Your task to perform on an android device: Go to Maps Image 0: 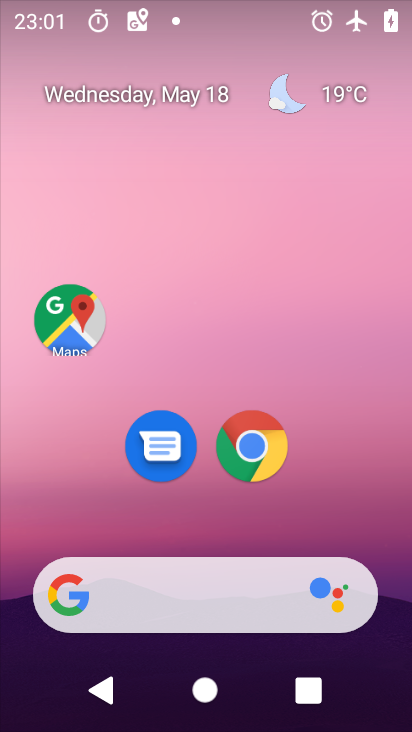
Step 0: press home button
Your task to perform on an android device: Go to Maps Image 1: 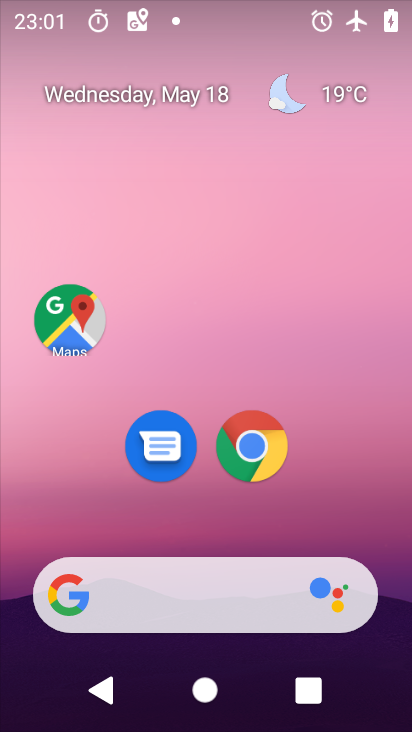
Step 1: click (80, 336)
Your task to perform on an android device: Go to Maps Image 2: 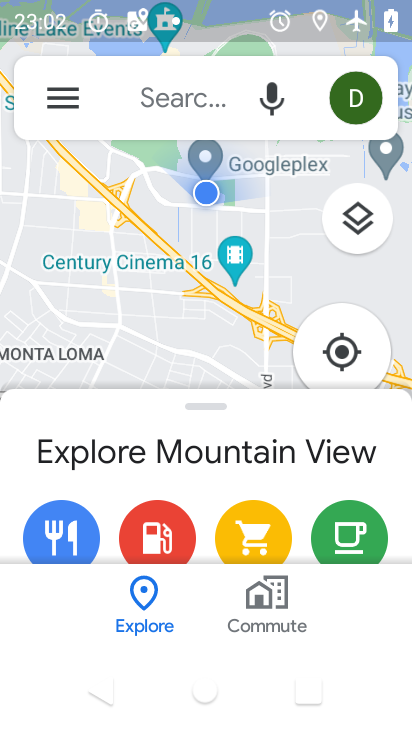
Step 2: task complete